Your task to perform on an android device: turn on bluetooth scan Image 0: 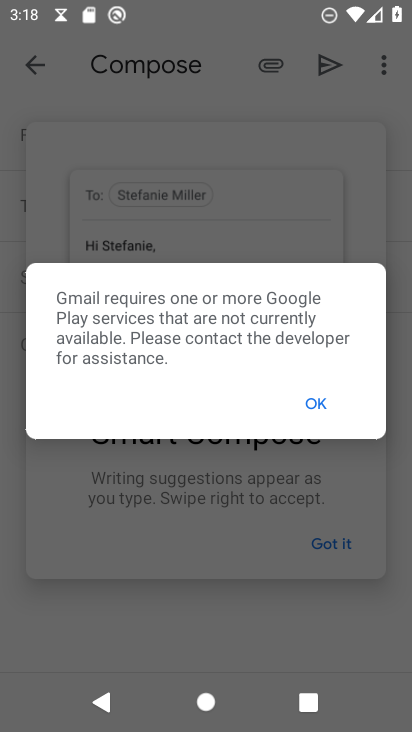
Step 0: press home button
Your task to perform on an android device: turn on bluetooth scan Image 1: 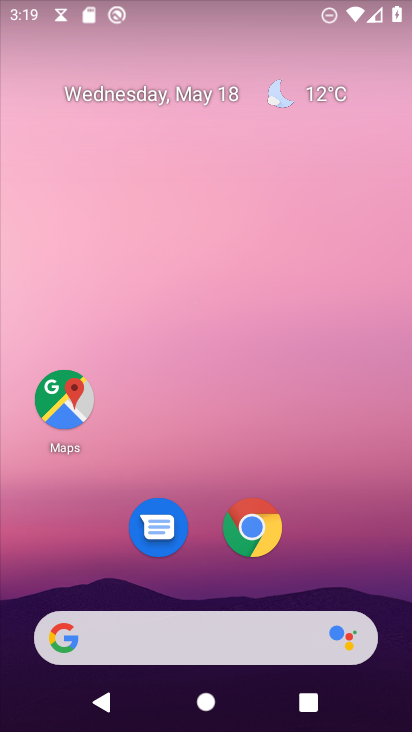
Step 1: drag from (324, 481) to (219, 52)
Your task to perform on an android device: turn on bluetooth scan Image 2: 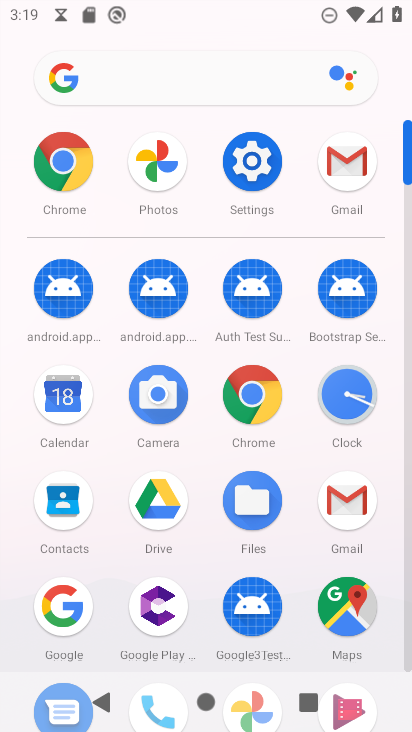
Step 2: click (257, 158)
Your task to perform on an android device: turn on bluetooth scan Image 3: 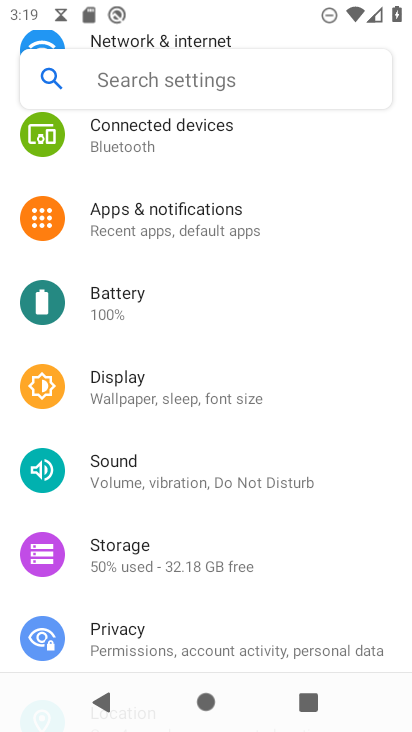
Step 3: drag from (208, 523) to (215, 175)
Your task to perform on an android device: turn on bluetooth scan Image 4: 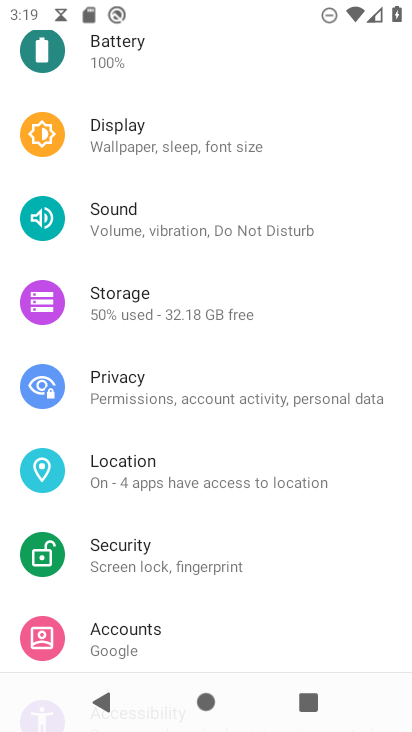
Step 4: click (186, 468)
Your task to perform on an android device: turn on bluetooth scan Image 5: 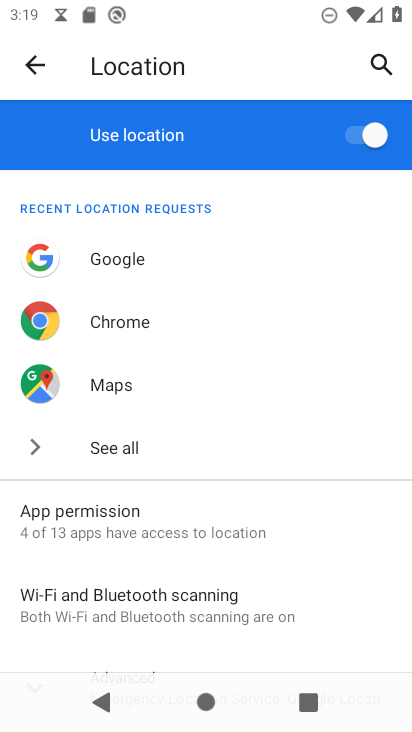
Step 5: drag from (232, 547) to (248, 234)
Your task to perform on an android device: turn on bluetooth scan Image 6: 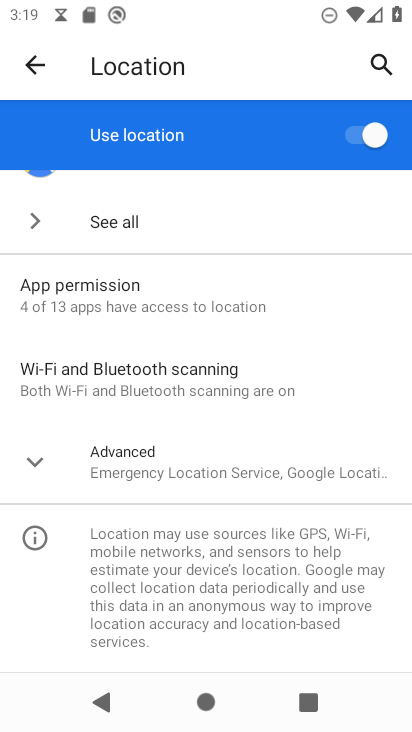
Step 6: click (243, 367)
Your task to perform on an android device: turn on bluetooth scan Image 7: 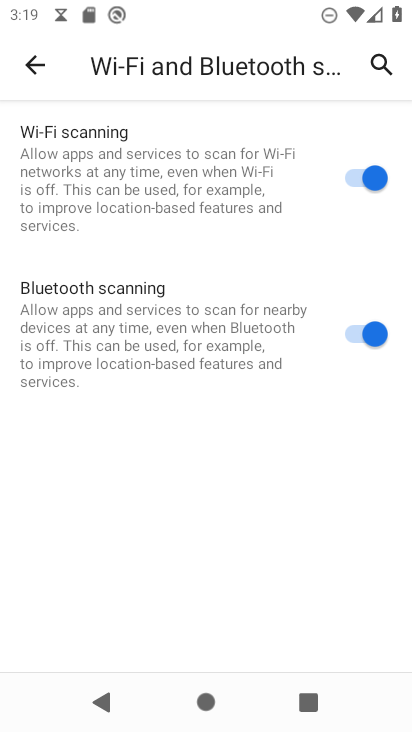
Step 7: task complete